Your task to perform on an android device: delete a single message in the gmail app Image 0: 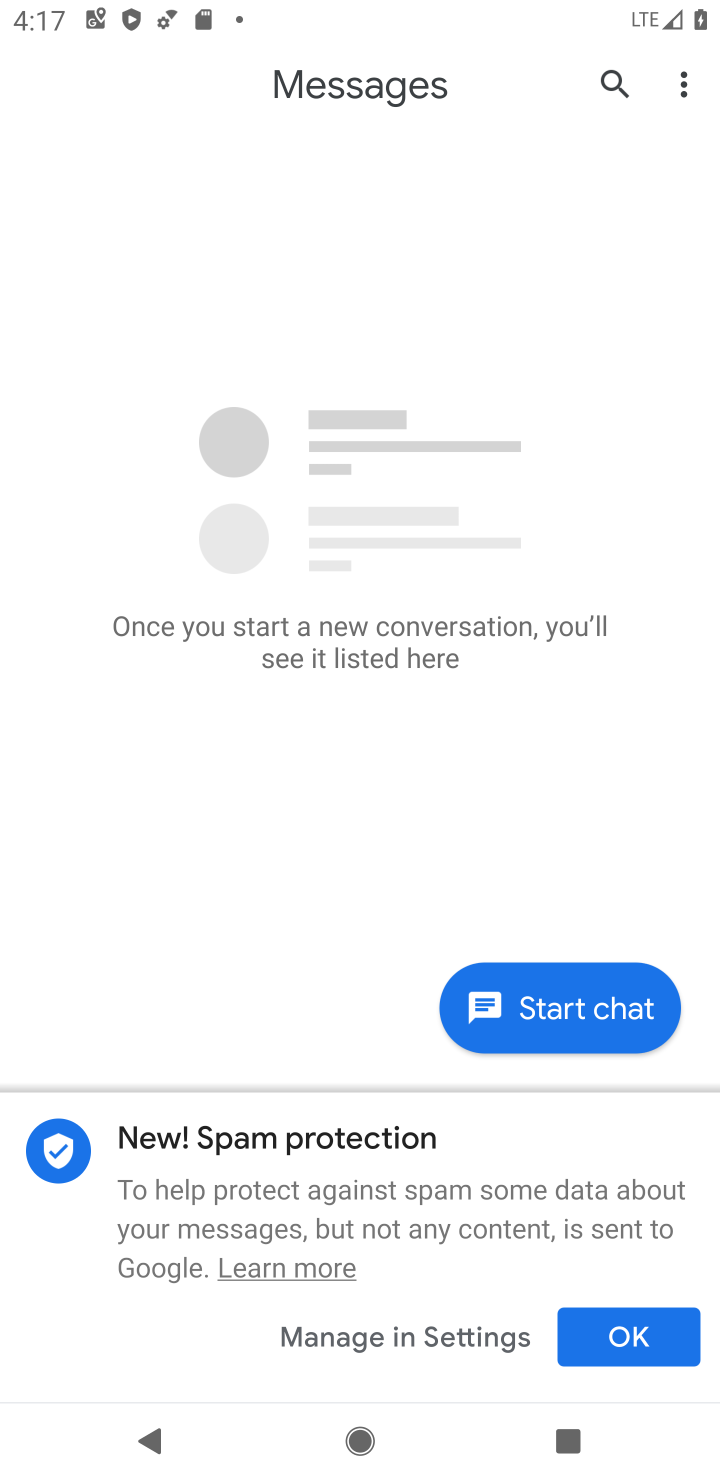
Step 0: press home button
Your task to perform on an android device: delete a single message in the gmail app Image 1: 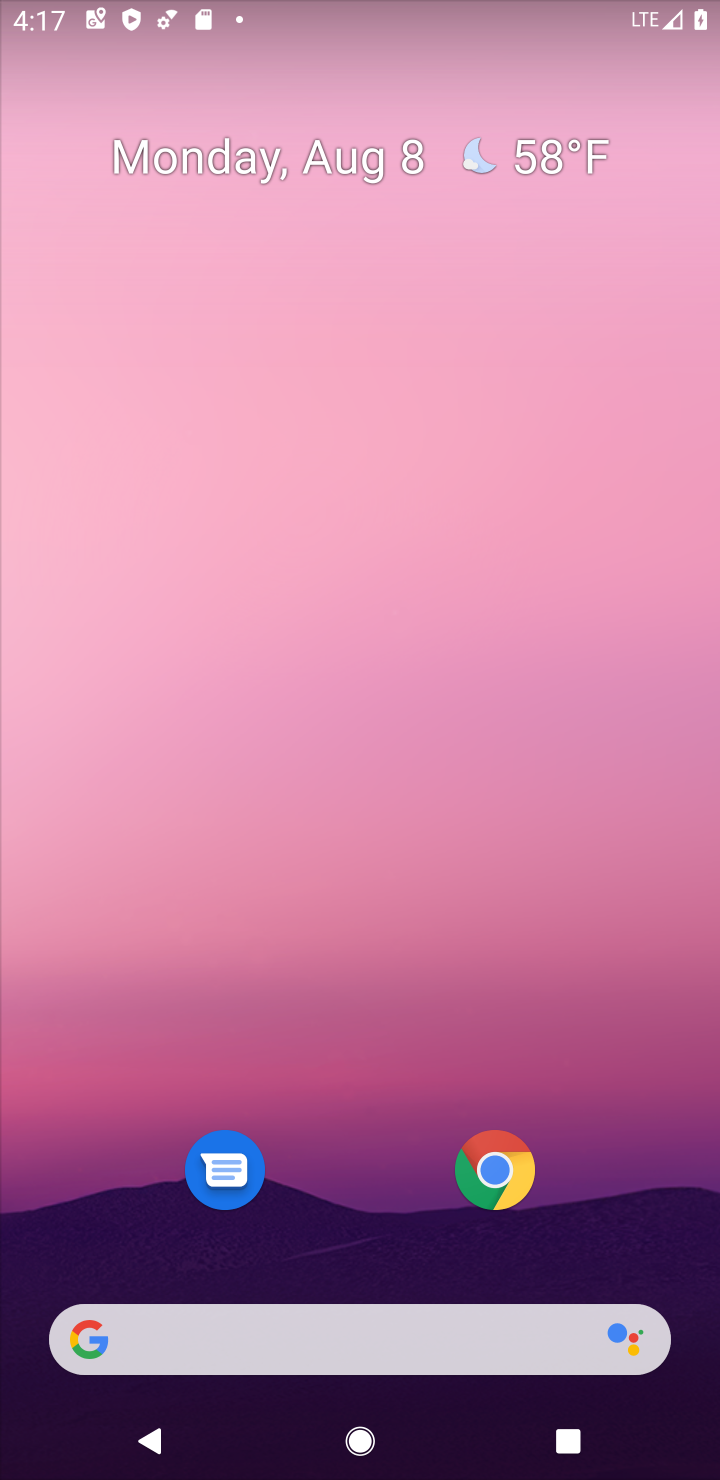
Step 1: drag from (367, 1196) to (361, 421)
Your task to perform on an android device: delete a single message in the gmail app Image 2: 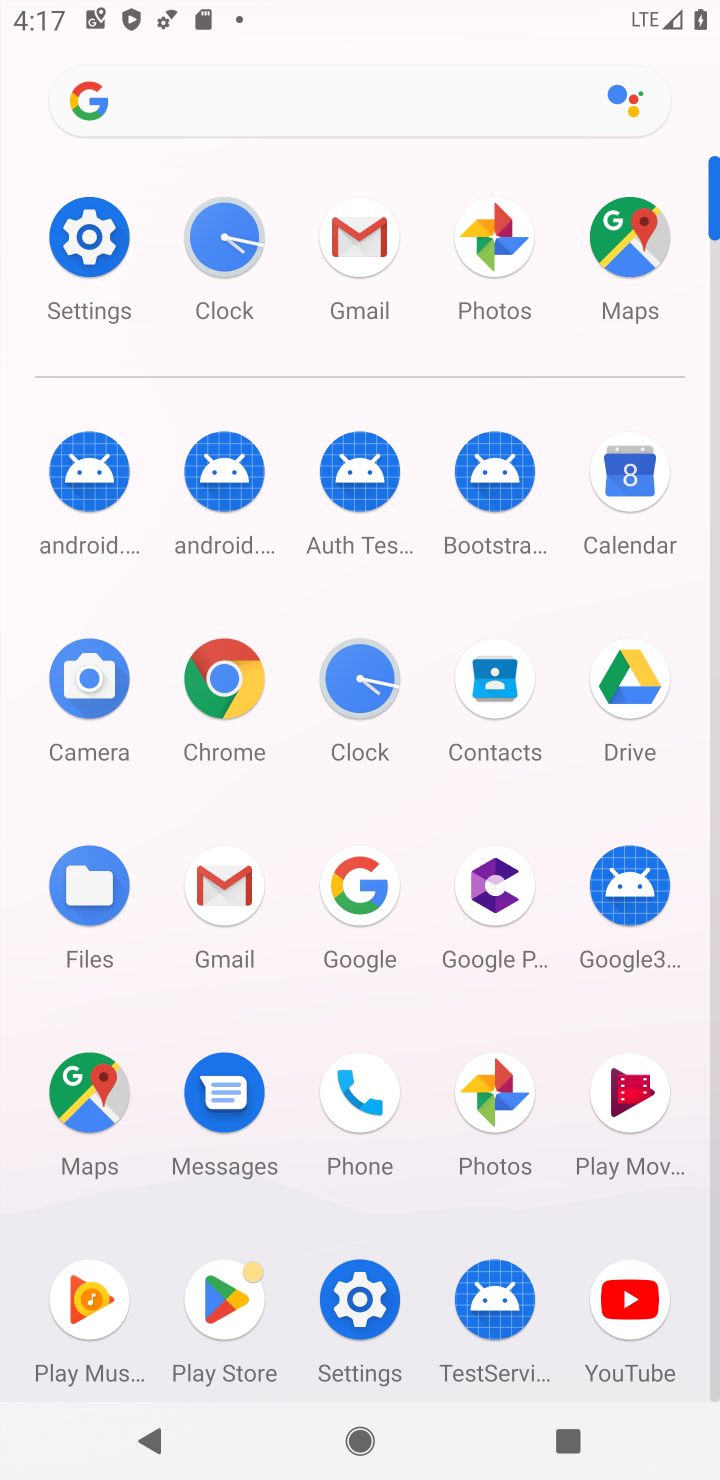
Step 2: click (341, 231)
Your task to perform on an android device: delete a single message in the gmail app Image 3: 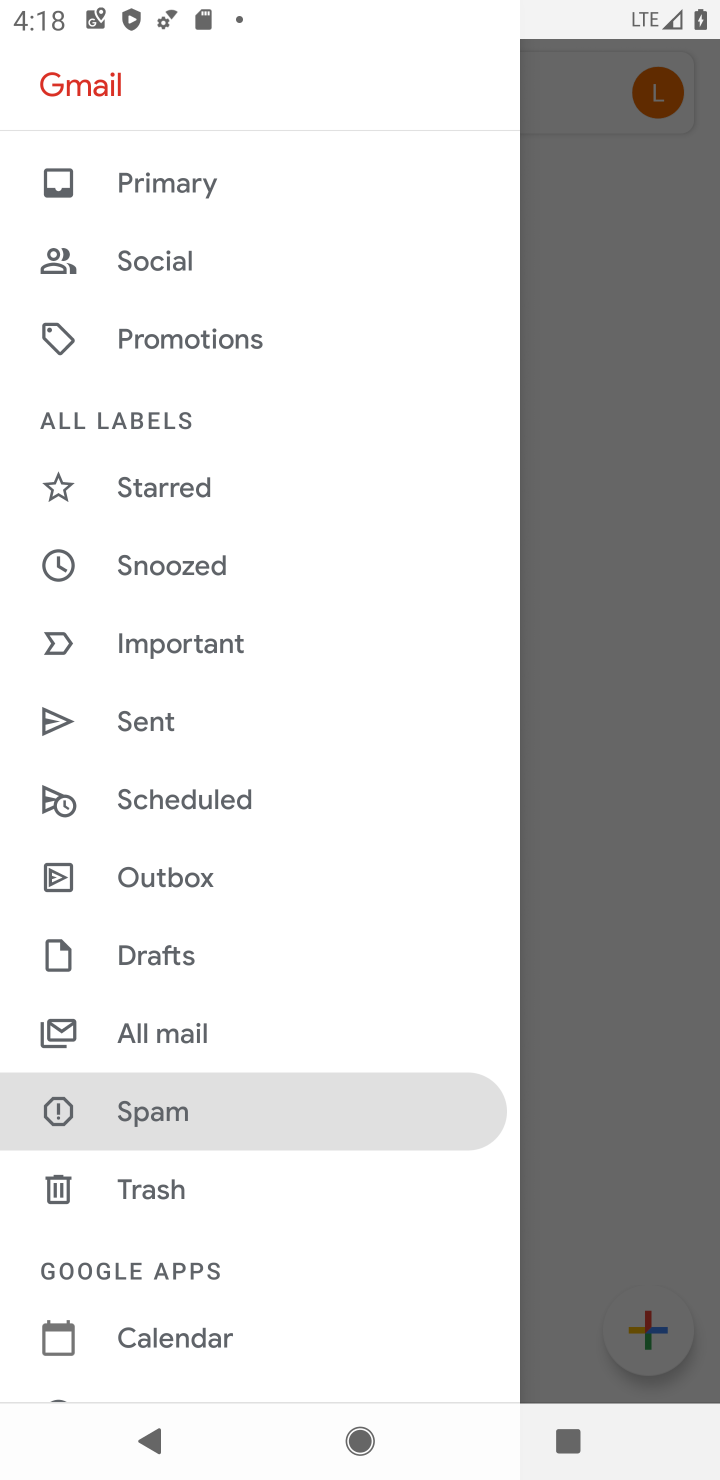
Step 3: click (179, 1046)
Your task to perform on an android device: delete a single message in the gmail app Image 4: 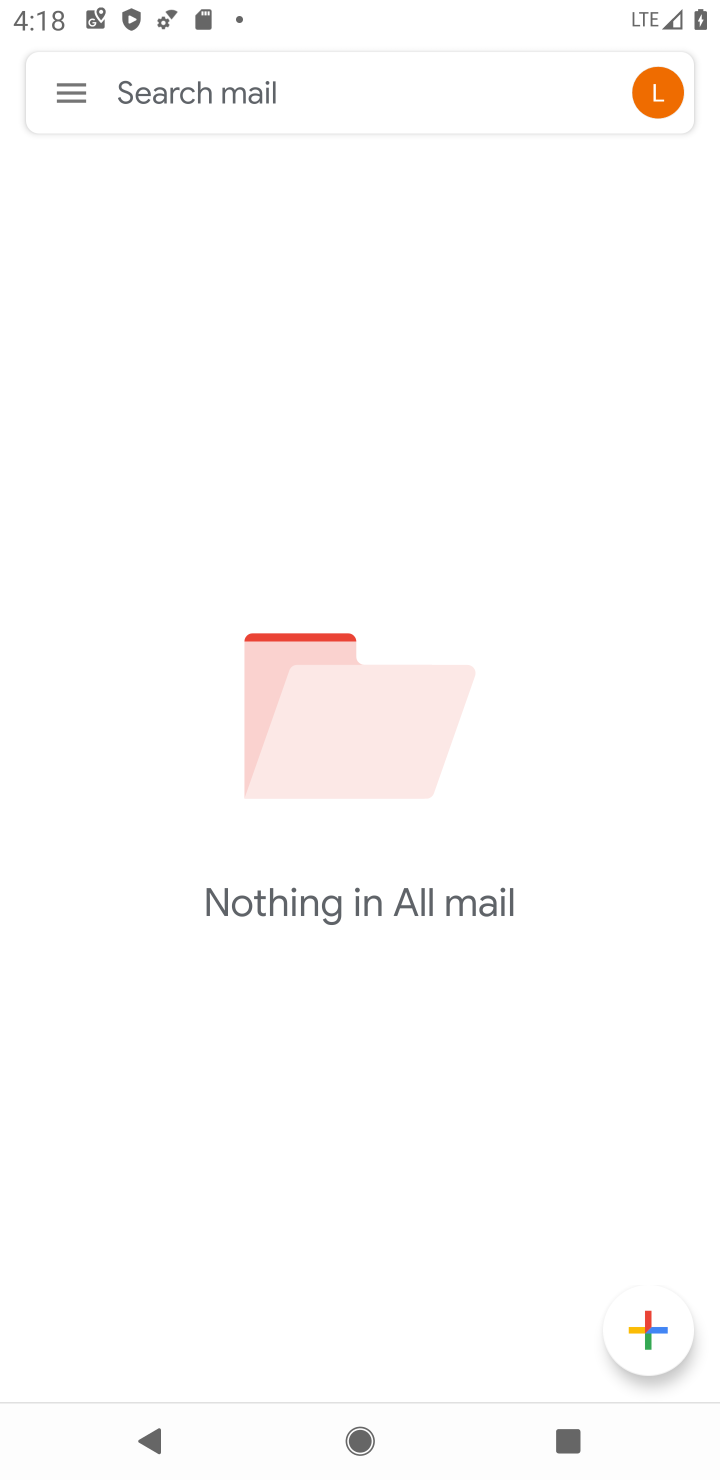
Step 4: task complete